Your task to perform on an android device: change notifications settings Image 0: 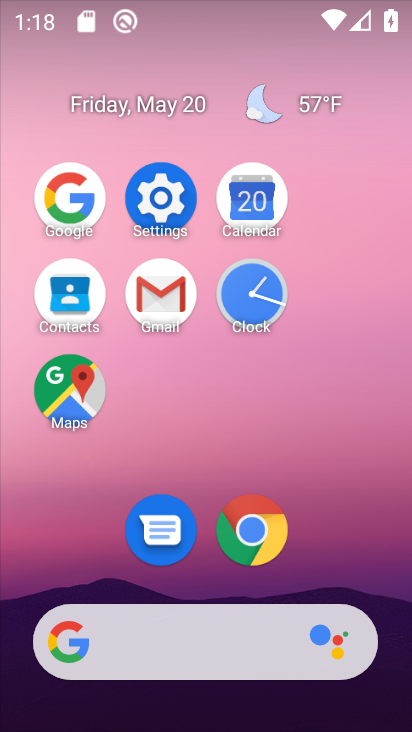
Step 0: click (173, 204)
Your task to perform on an android device: change notifications settings Image 1: 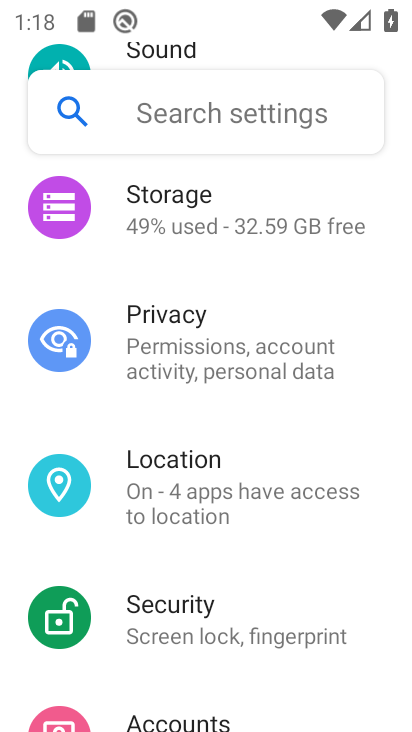
Step 1: drag from (271, 317) to (266, 731)
Your task to perform on an android device: change notifications settings Image 2: 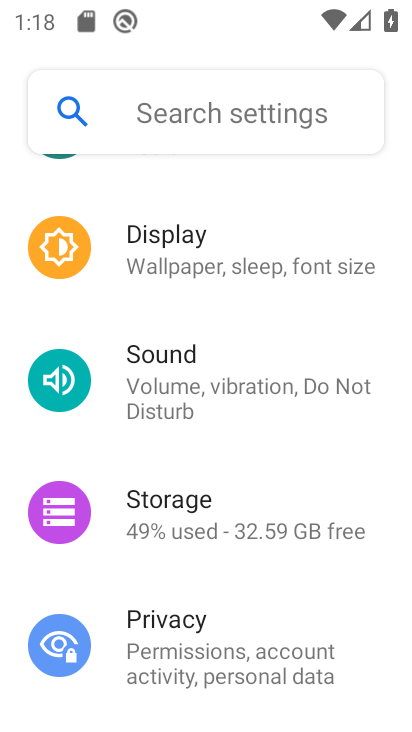
Step 2: drag from (318, 330) to (286, 693)
Your task to perform on an android device: change notifications settings Image 3: 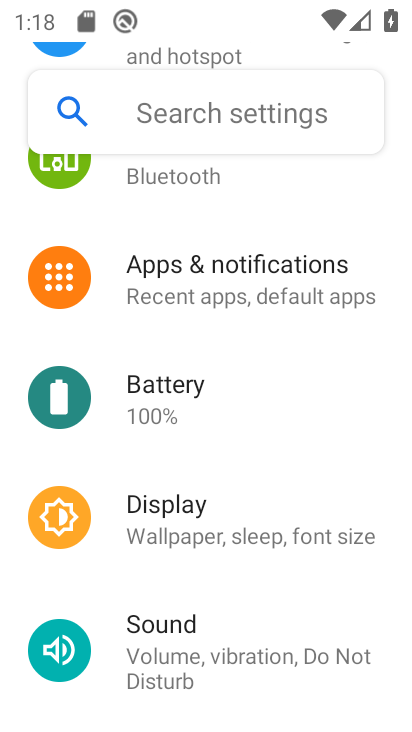
Step 3: click (290, 293)
Your task to perform on an android device: change notifications settings Image 4: 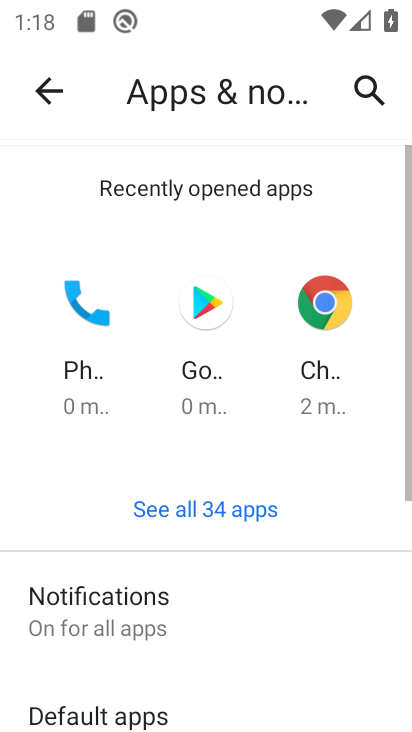
Step 4: click (237, 604)
Your task to perform on an android device: change notifications settings Image 5: 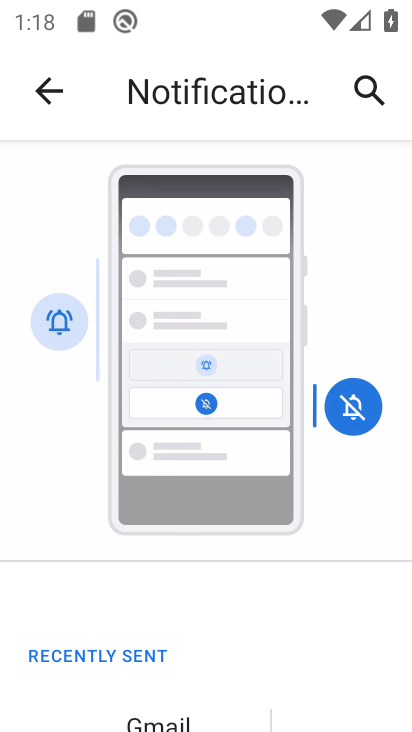
Step 5: drag from (257, 639) to (278, 278)
Your task to perform on an android device: change notifications settings Image 6: 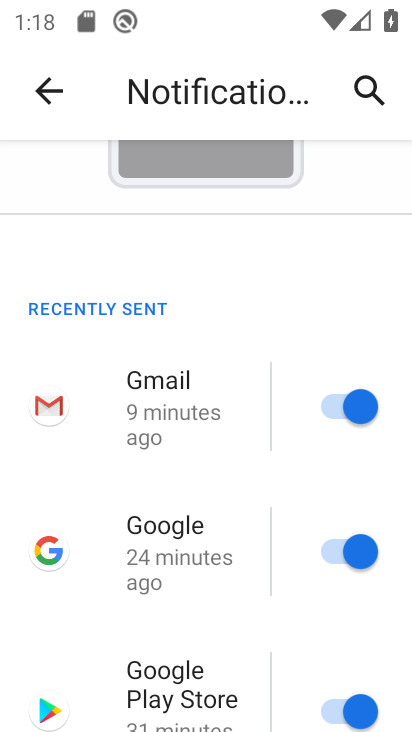
Step 6: drag from (179, 470) to (233, 227)
Your task to perform on an android device: change notifications settings Image 7: 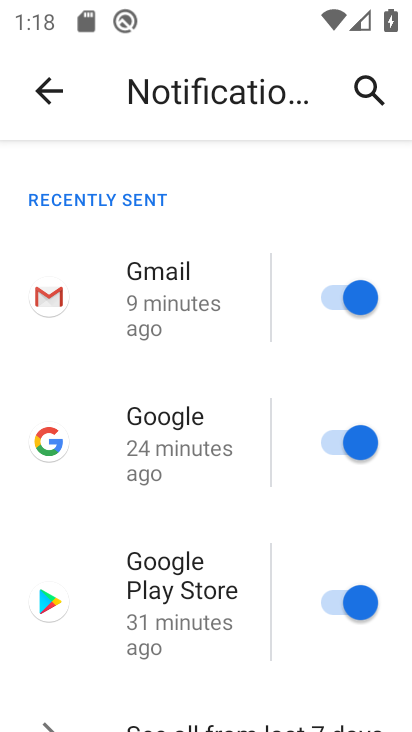
Step 7: drag from (214, 592) to (238, 211)
Your task to perform on an android device: change notifications settings Image 8: 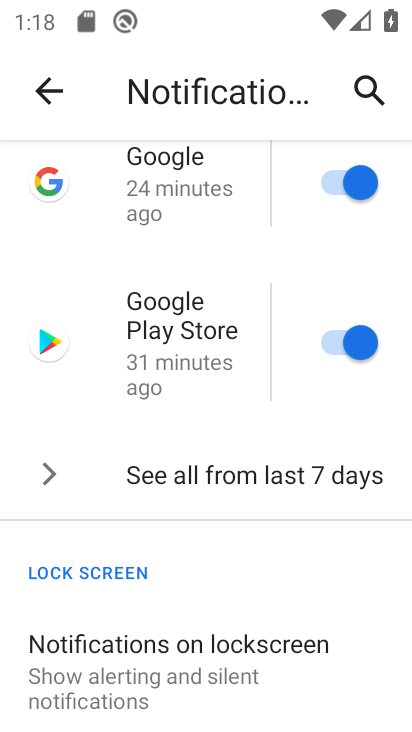
Step 8: drag from (199, 417) to (231, 152)
Your task to perform on an android device: change notifications settings Image 9: 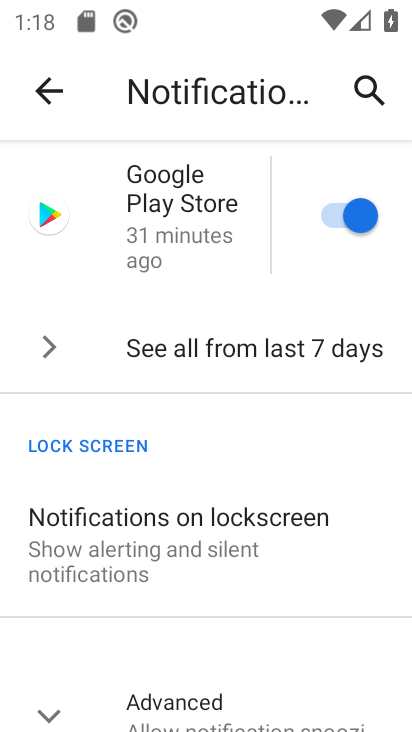
Step 9: click (128, 650)
Your task to perform on an android device: change notifications settings Image 10: 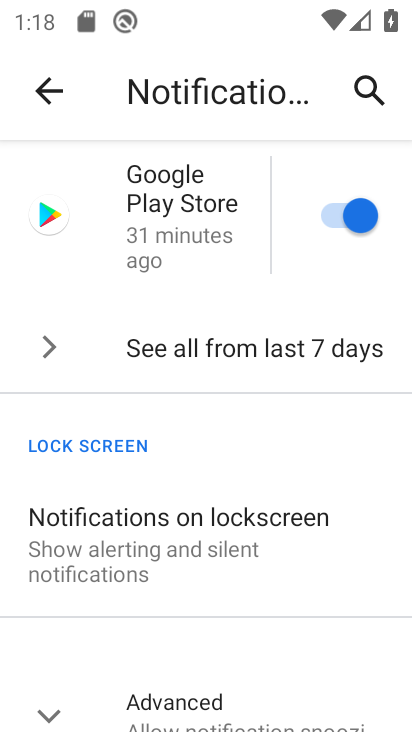
Step 10: click (191, 677)
Your task to perform on an android device: change notifications settings Image 11: 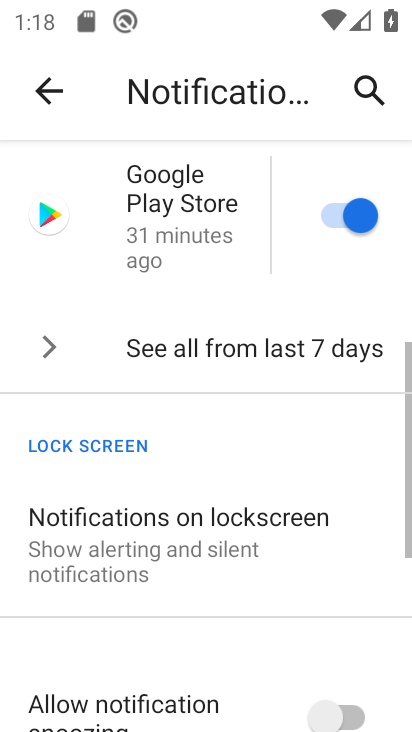
Step 11: drag from (222, 573) to (275, 95)
Your task to perform on an android device: change notifications settings Image 12: 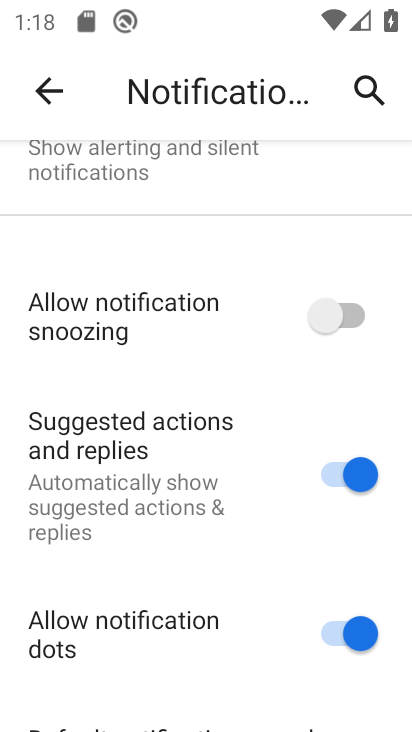
Step 12: click (344, 306)
Your task to perform on an android device: change notifications settings Image 13: 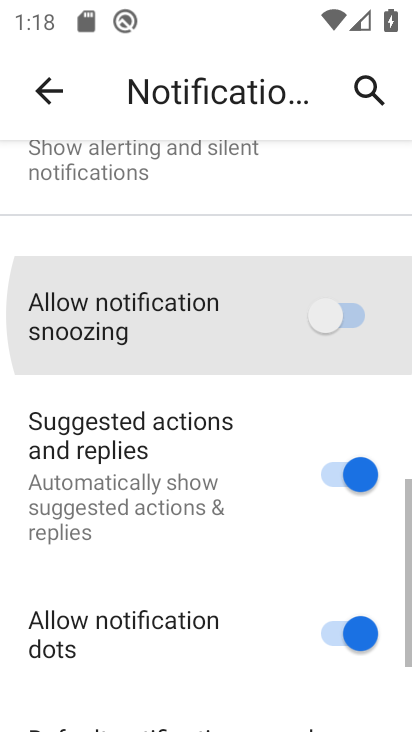
Step 13: click (336, 451)
Your task to perform on an android device: change notifications settings Image 14: 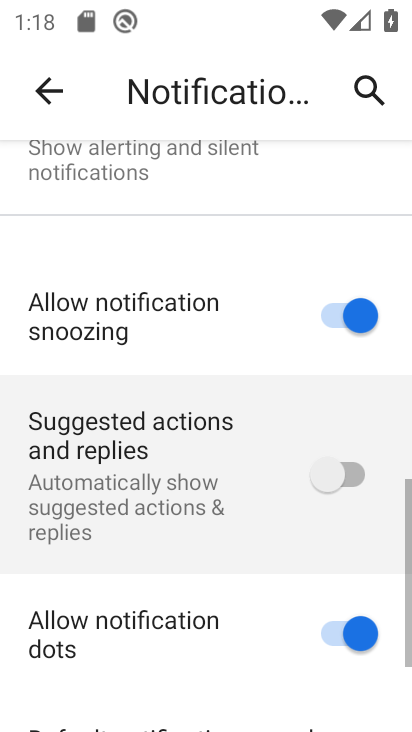
Step 14: click (348, 633)
Your task to perform on an android device: change notifications settings Image 15: 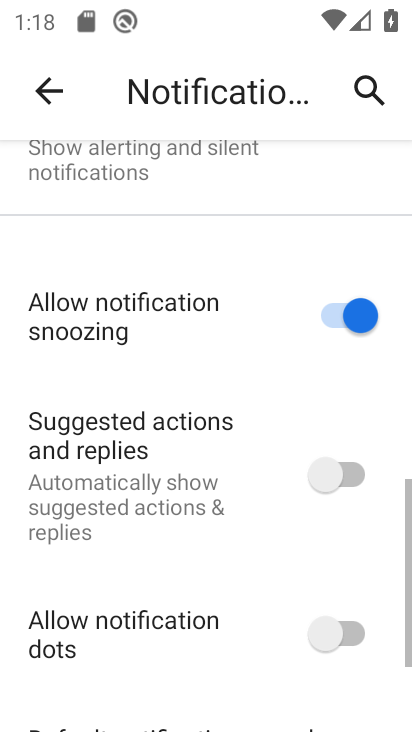
Step 15: task complete